Your task to perform on an android device: Open privacy settings Image 0: 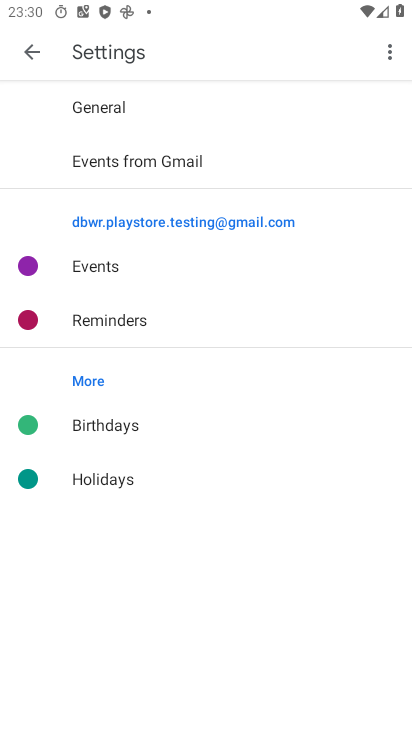
Step 0: press home button
Your task to perform on an android device: Open privacy settings Image 1: 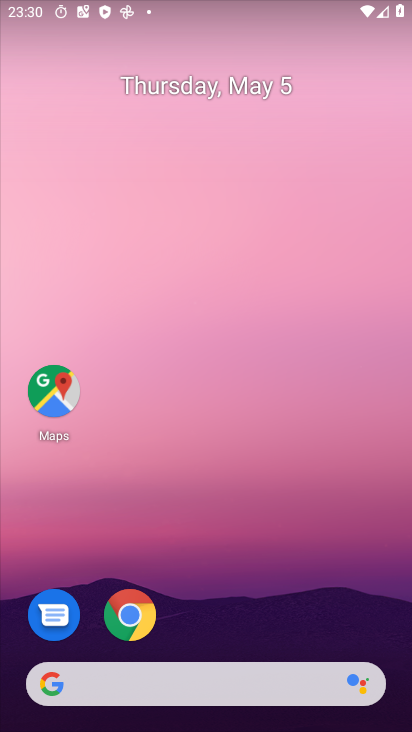
Step 1: drag from (245, 595) to (283, 55)
Your task to perform on an android device: Open privacy settings Image 2: 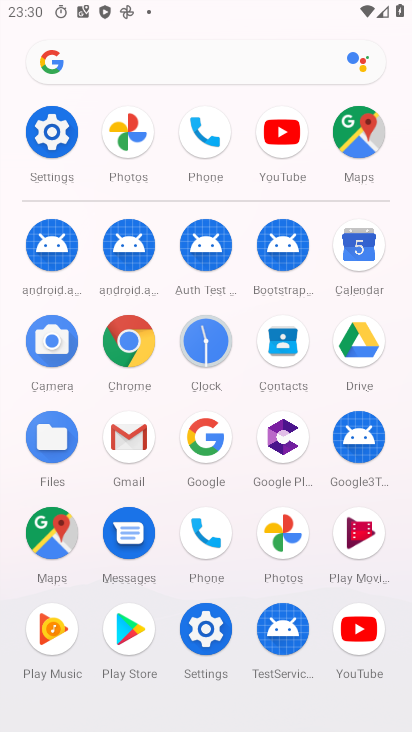
Step 2: drag from (168, 592) to (200, 643)
Your task to perform on an android device: Open privacy settings Image 3: 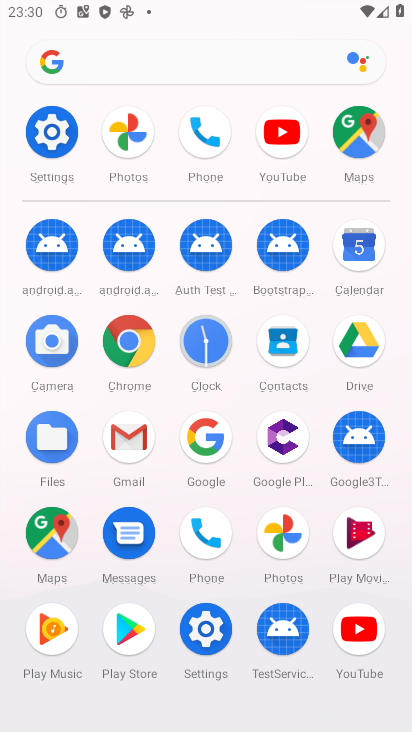
Step 3: click (128, 342)
Your task to perform on an android device: Open privacy settings Image 4: 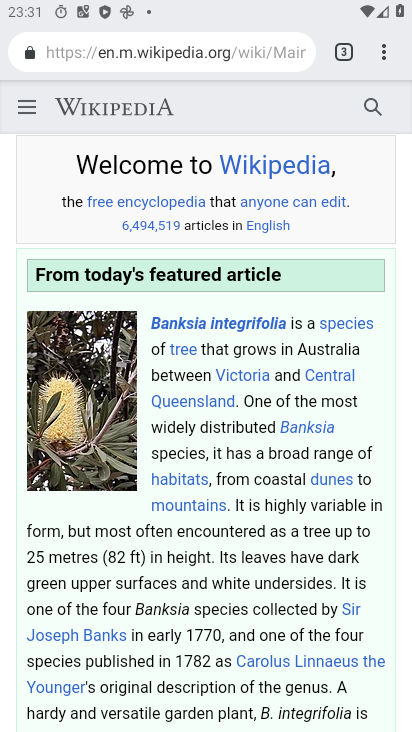
Step 4: click (379, 55)
Your task to perform on an android device: Open privacy settings Image 5: 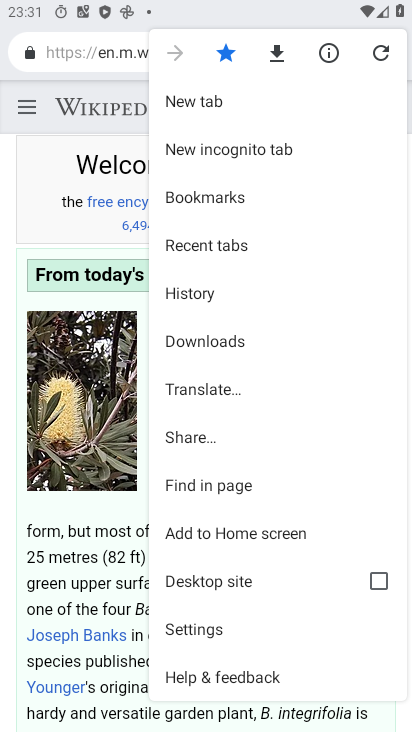
Step 5: click (235, 626)
Your task to perform on an android device: Open privacy settings Image 6: 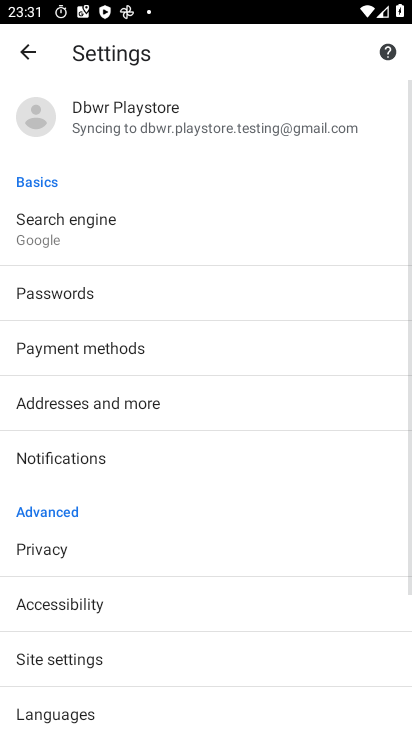
Step 6: click (73, 548)
Your task to perform on an android device: Open privacy settings Image 7: 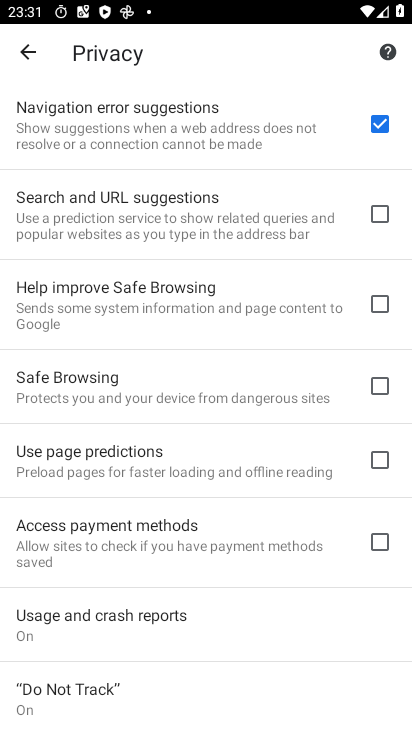
Step 7: task complete